Your task to perform on an android device: open app "LiveIn - Share Your Moment" Image 0: 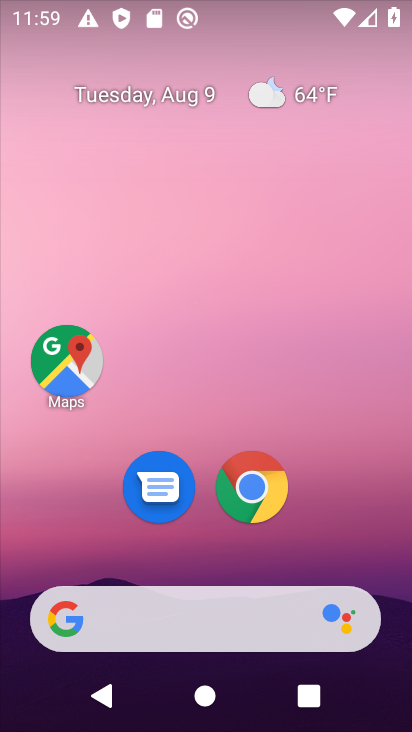
Step 0: drag from (182, 577) to (172, 6)
Your task to perform on an android device: open app "LiveIn - Share Your Moment" Image 1: 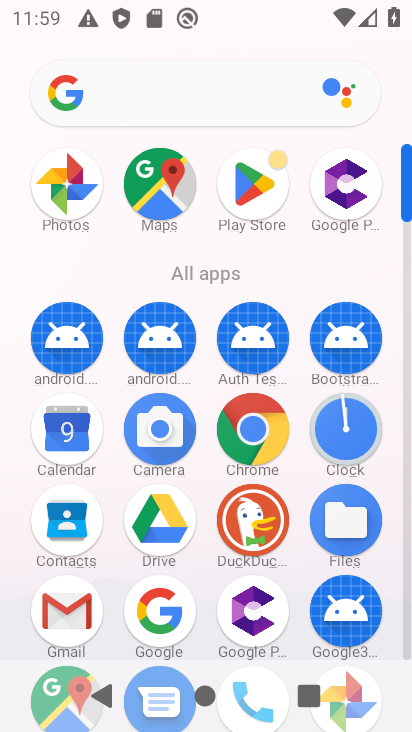
Step 1: drag from (218, 580) to (227, 261)
Your task to perform on an android device: open app "LiveIn - Share Your Moment" Image 2: 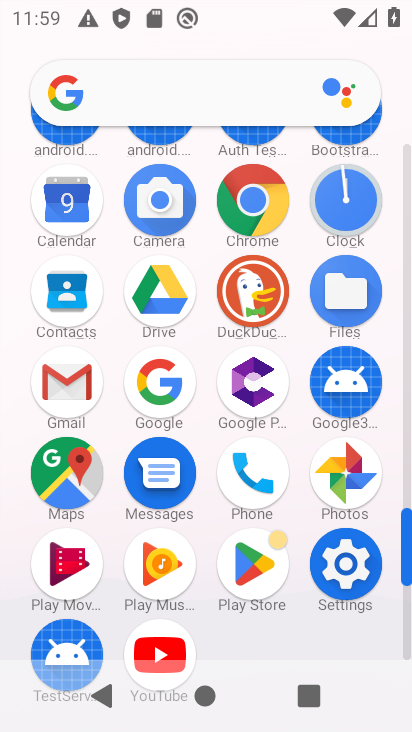
Step 2: click (244, 579)
Your task to perform on an android device: open app "LiveIn - Share Your Moment" Image 3: 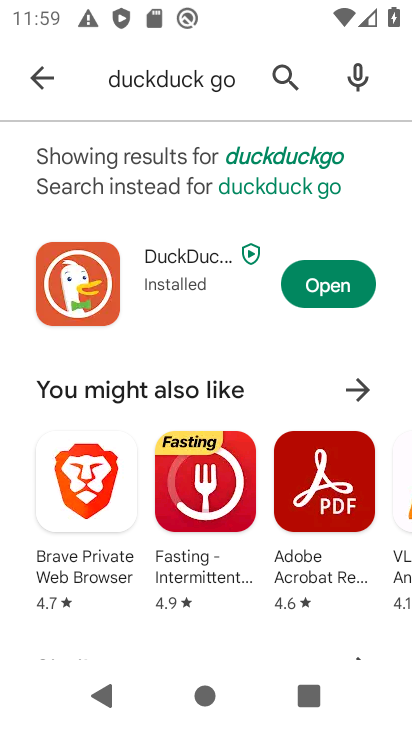
Step 3: click (147, 92)
Your task to perform on an android device: open app "LiveIn - Share Your Moment" Image 4: 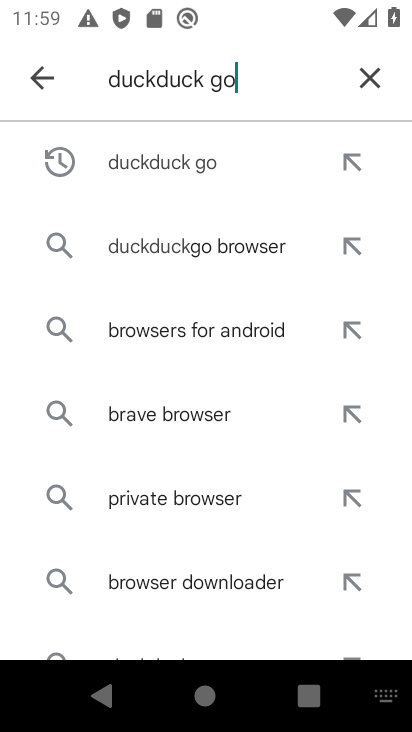
Step 4: click (369, 80)
Your task to perform on an android device: open app "LiveIn - Share Your Moment" Image 5: 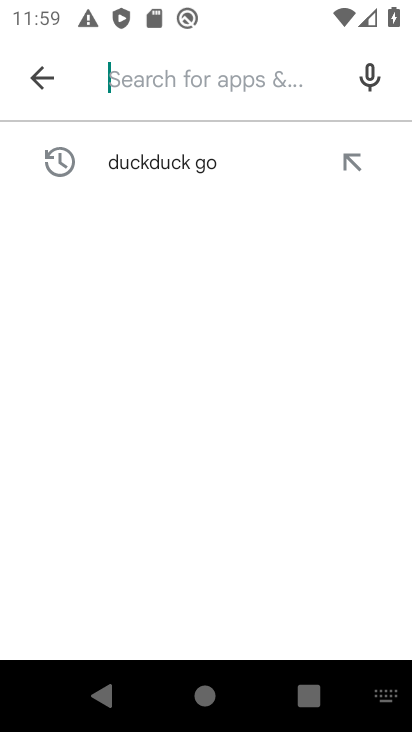
Step 5: type "liveIn"
Your task to perform on an android device: open app "LiveIn - Share Your Moment" Image 6: 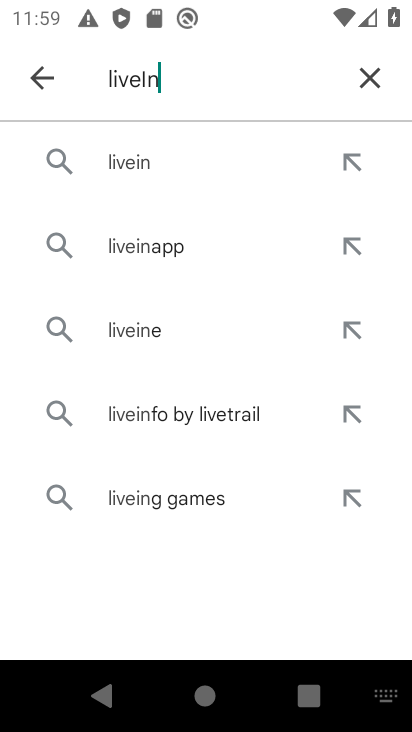
Step 6: click (154, 152)
Your task to perform on an android device: open app "LiveIn - Share Your Moment" Image 7: 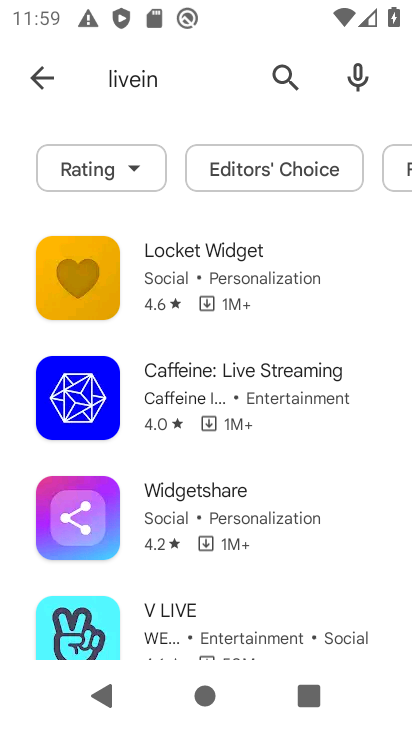
Step 7: task complete